Your task to perform on an android device: set the timer Image 0: 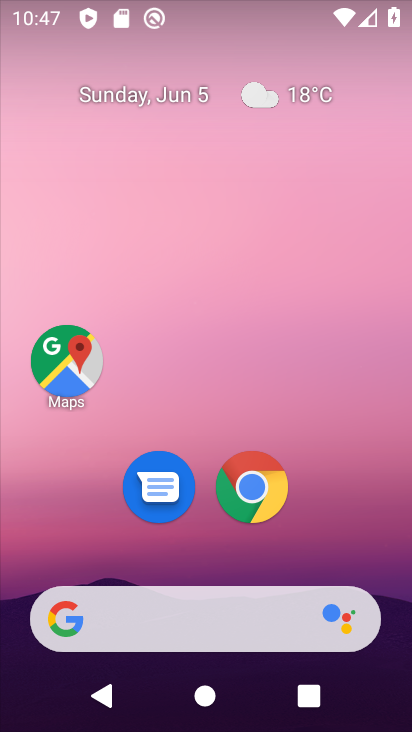
Step 0: drag from (387, 541) to (286, 217)
Your task to perform on an android device: set the timer Image 1: 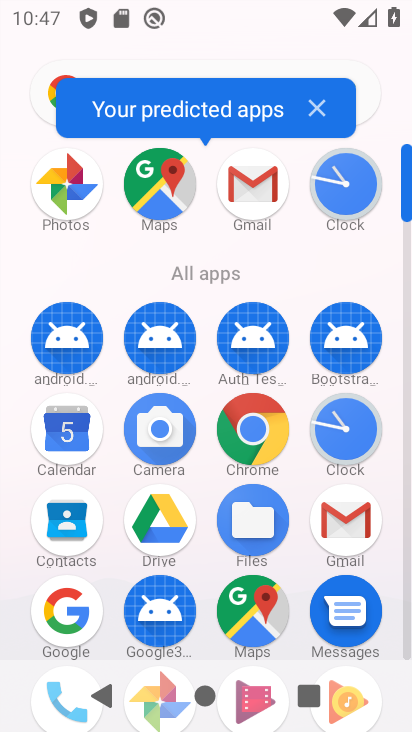
Step 1: click (334, 173)
Your task to perform on an android device: set the timer Image 2: 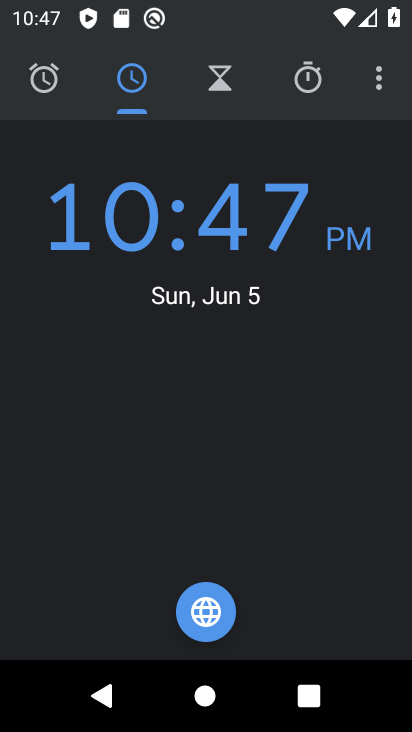
Step 2: click (222, 80)
Your task to perform on an android device: set the timer Image 3: 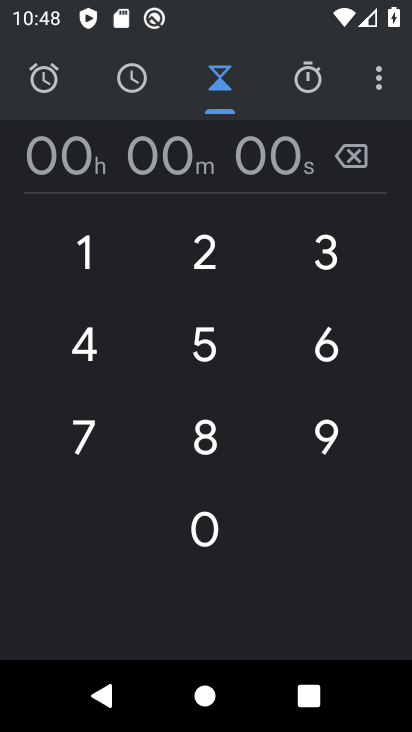
Step 3: type "100000"
Your task to perform on an android device: set the timer Image 4: 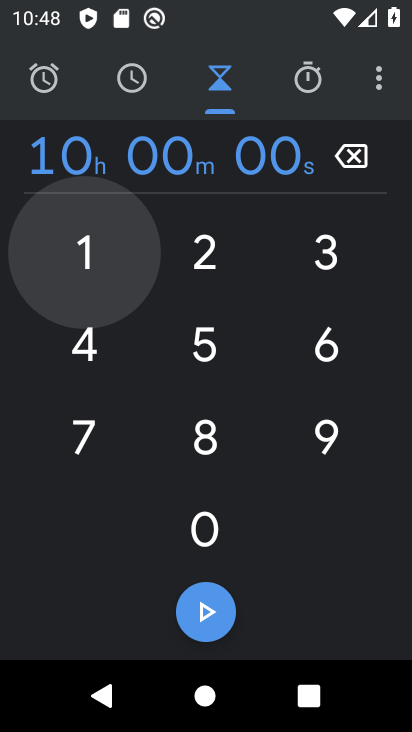
Step 4: click (218, 610)
Your task to perform on an android device: set the timer Image 5: 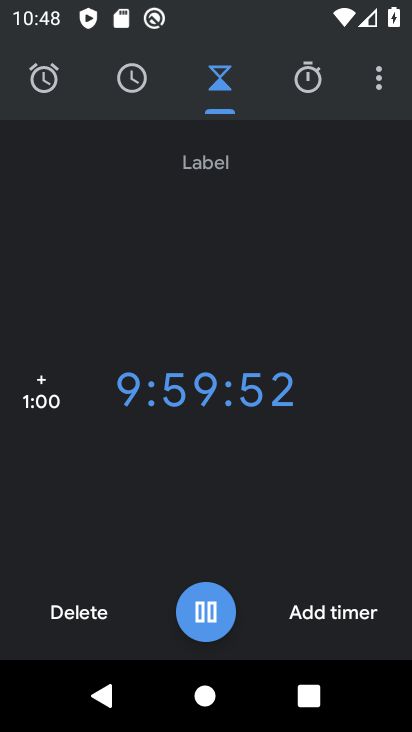
Step 5: task complete